Your task to perform on an android device: toggle translation in the chrome app Image 0: 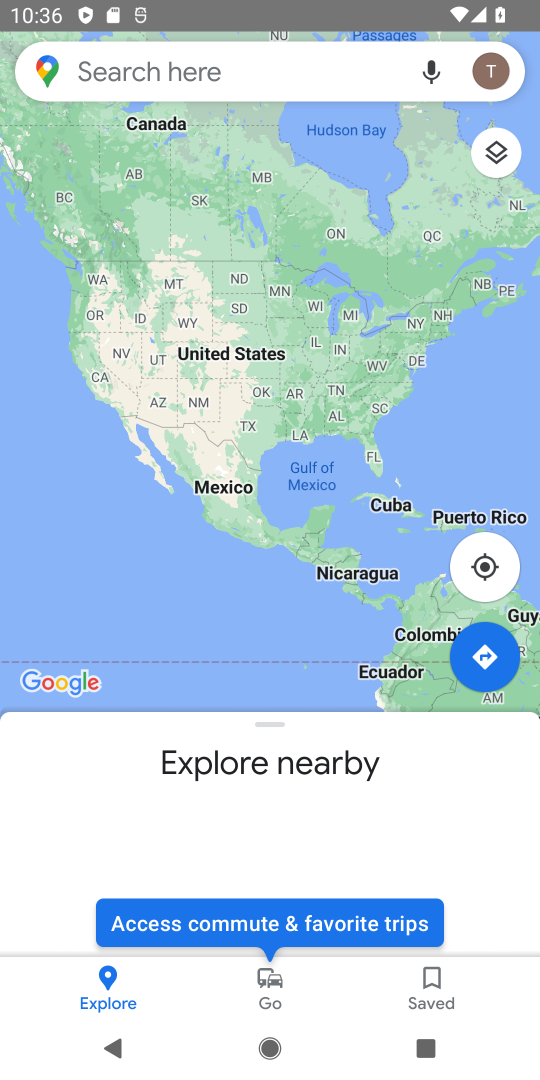
Step 0: press home button
Your task to perform on an android device: toggle translation in the chrome app Image 1: 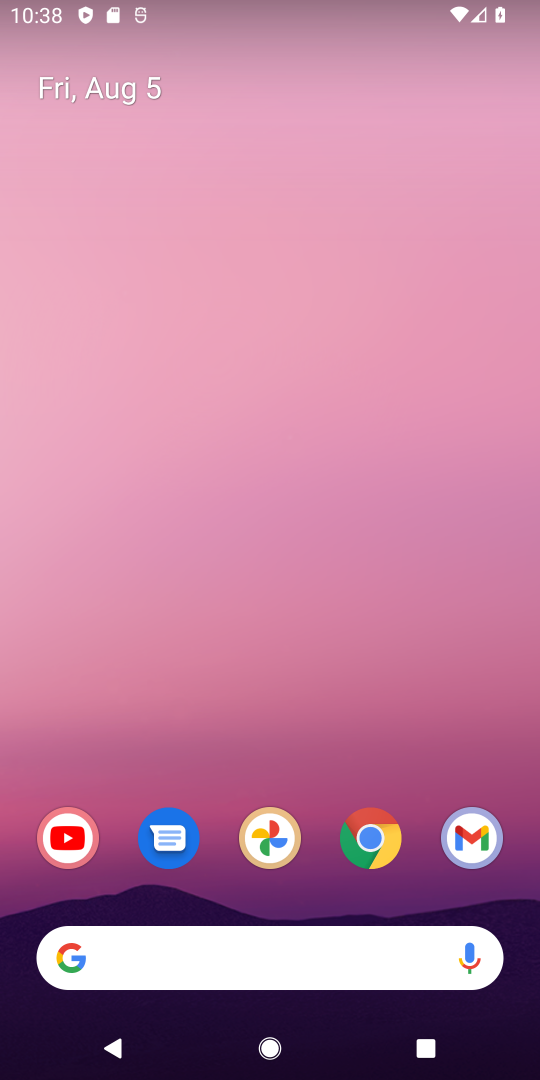
Step 1: click (355, 839)
Your task to perform on an android device: toggle translation in the chrome app Image 2: 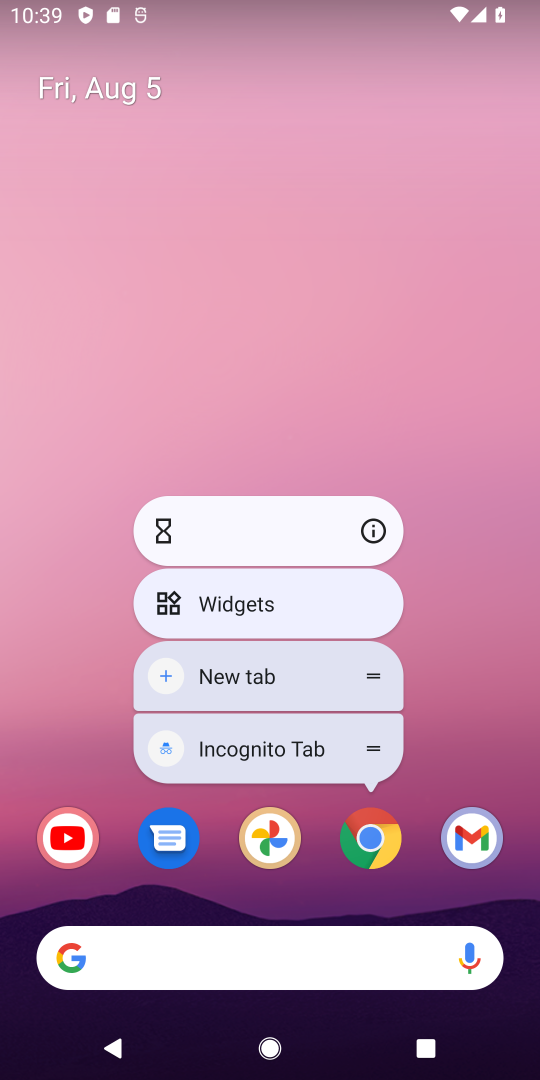
Step 2: click (237, 386)
Your task to perform on an android device: toggle translation in the chrome app Image 3: 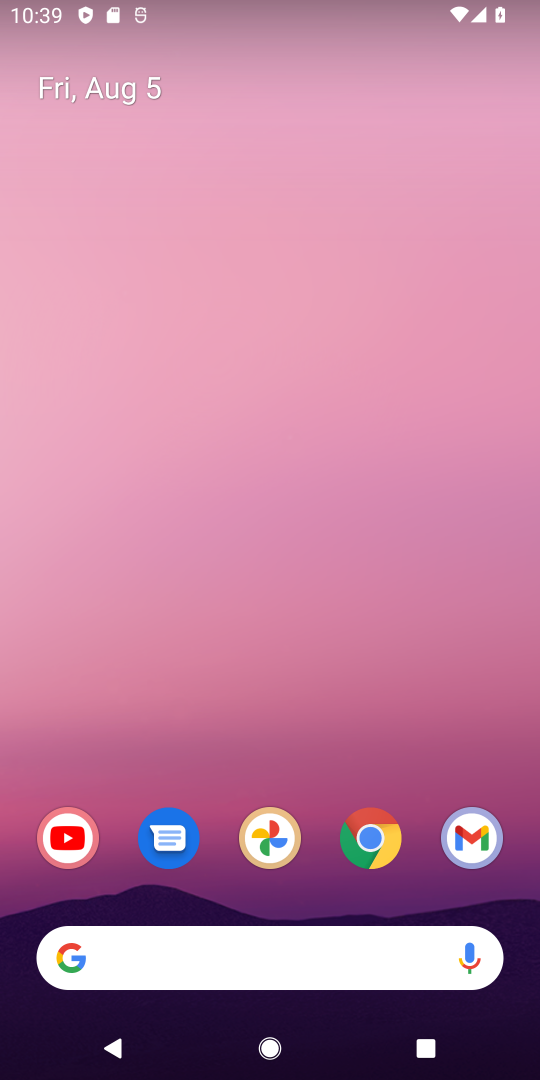
Step 3: click (354, 874)
Your task to perform on an android device: toggle translation in the chrome app Image 4: 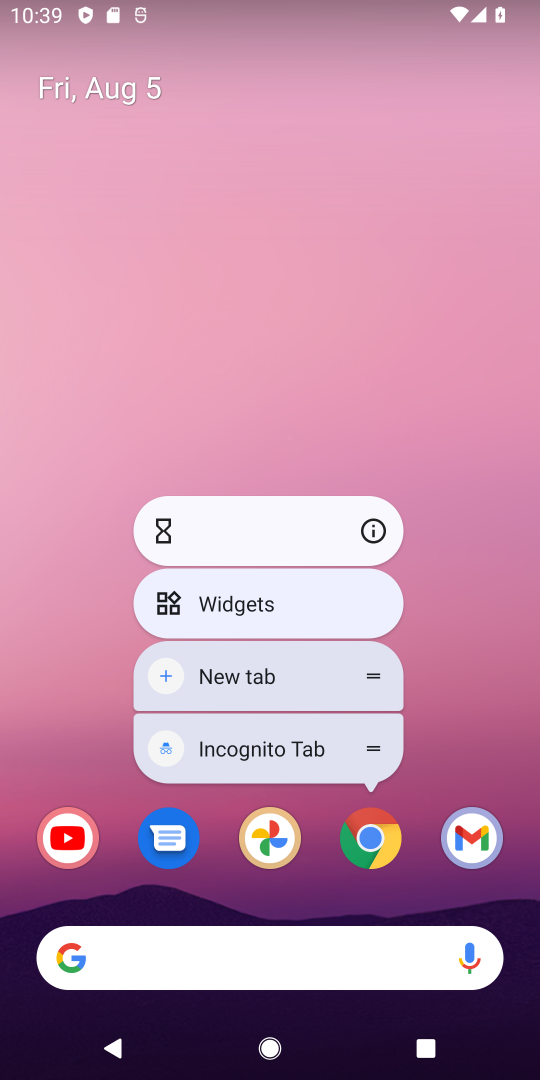
Step 4: click (359, 853)
Your task to perform on an android device: toggle translation in the chrome app Image 5: 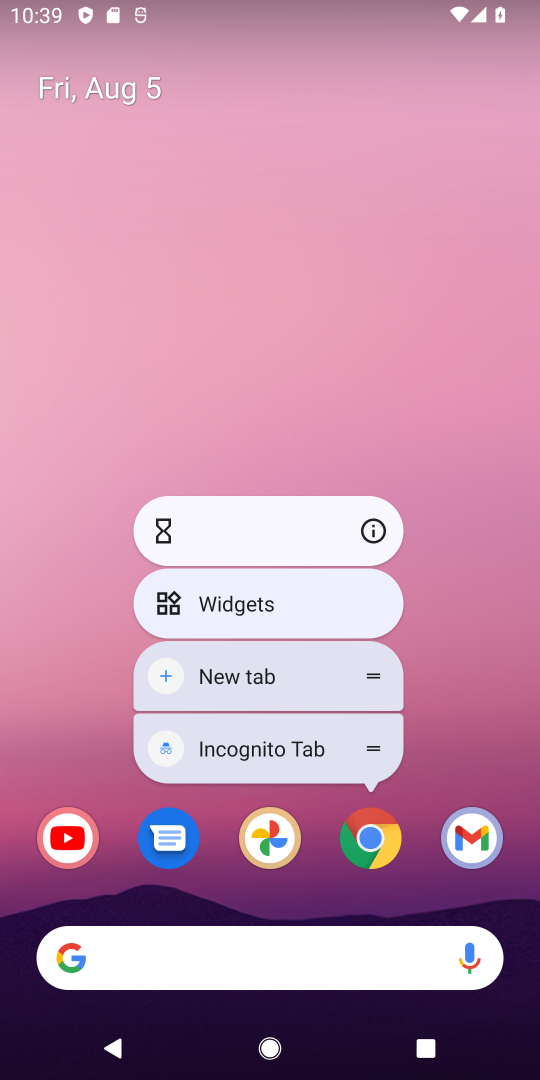
Step 5: click (486, 580)
Your task to perform on an android device: toggle translation in the chrome app Image 6: 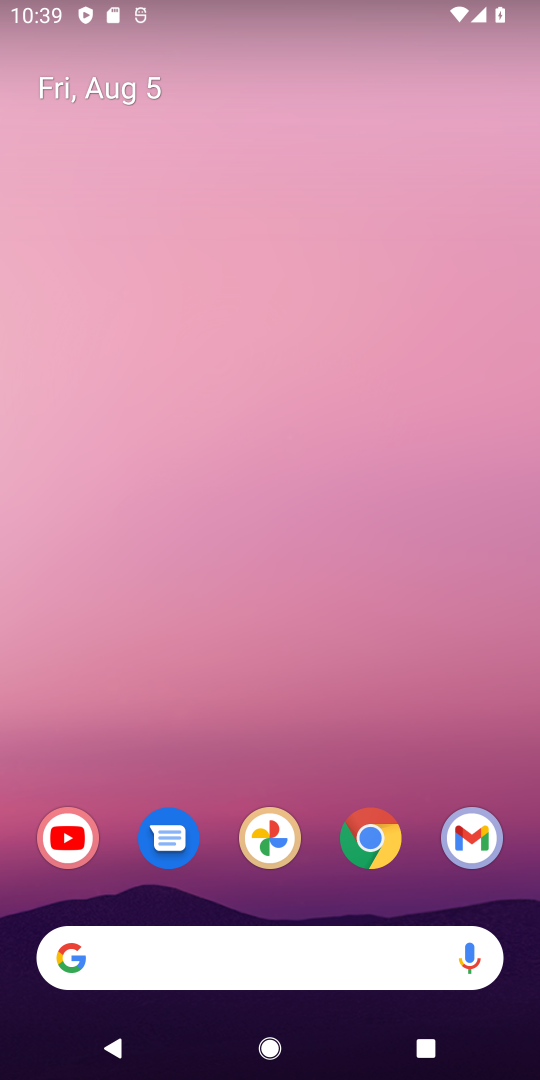
Step 6: drag from (322, 730) to (353, 353)
Your task to perform on an android device: toggle translation in the chrome app Image 7: 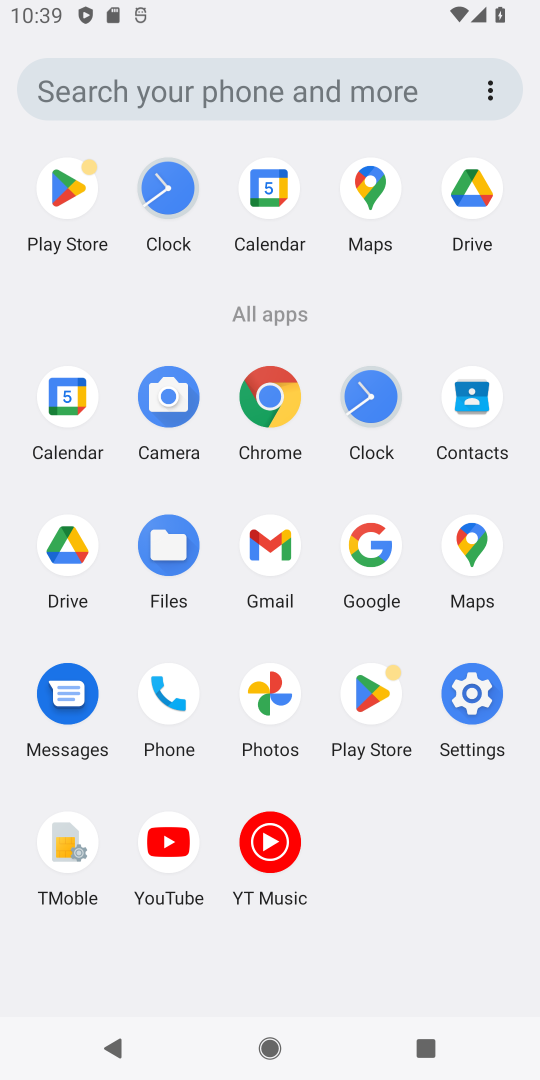
Step 7: click (272, 403)
Your task to perform on an android device: toggle translation in the chrome app Image 8: 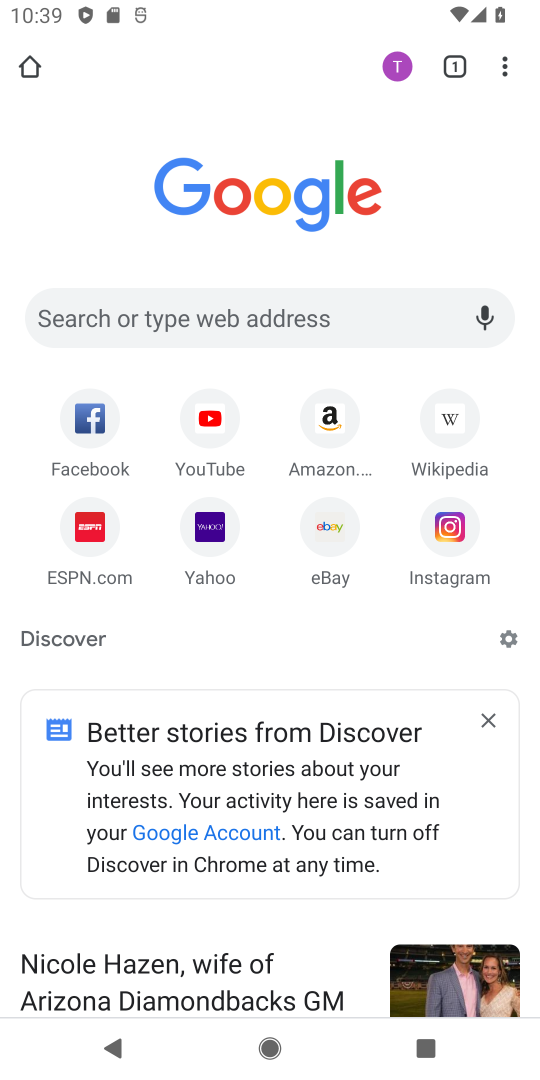
Step 8: click (509, 63)
Your task to perform on an android device: toggle translation in the chrome app Image 9: 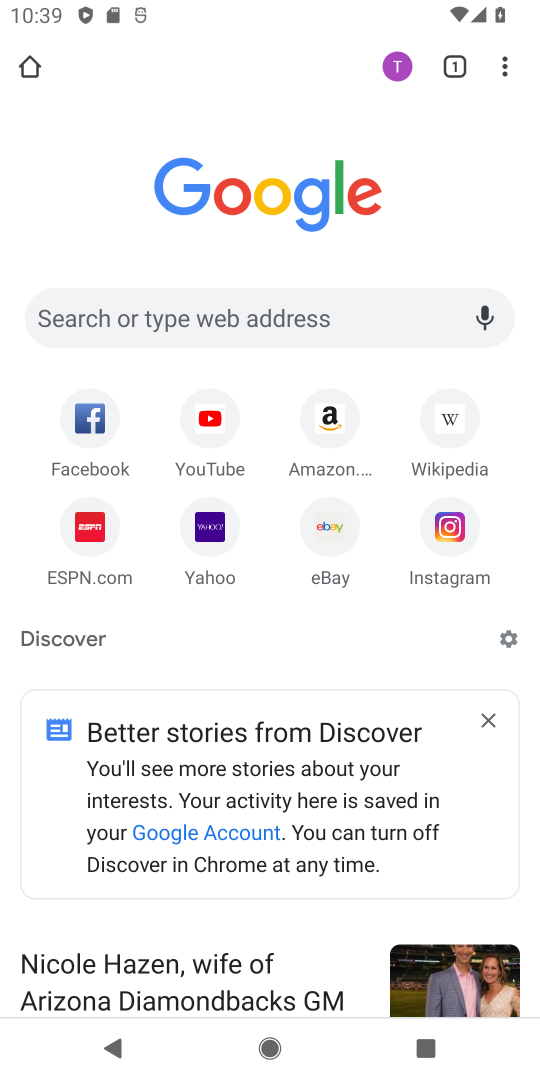
Step 9: click (509, 63)
Your task to perform on an android device: toggle translation in the chrome app Image 10: 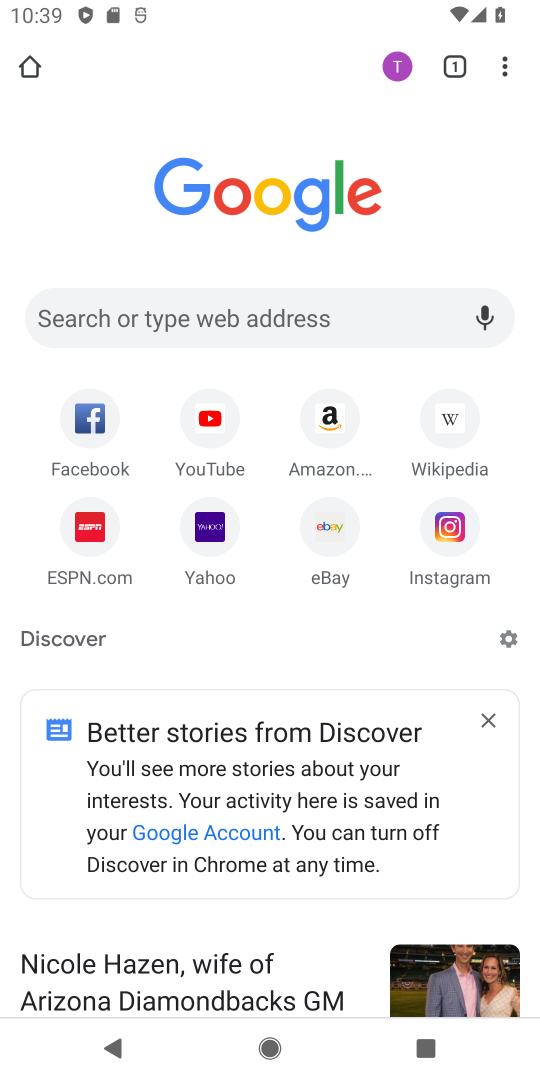
Step 10: task complete